Your task to perform on an android device: turn on notifications settings in the gmail app Image 0: 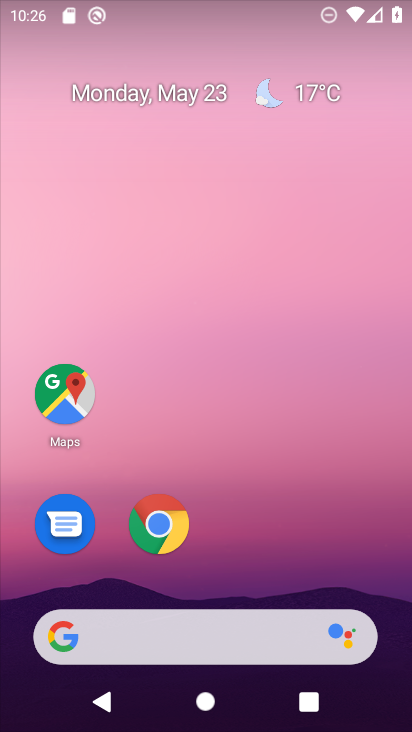
Step 0: drag from (202, 575) to (216, 215)
Your task to perform on an android device: turn on notifications settings in the gmail app Image 1: 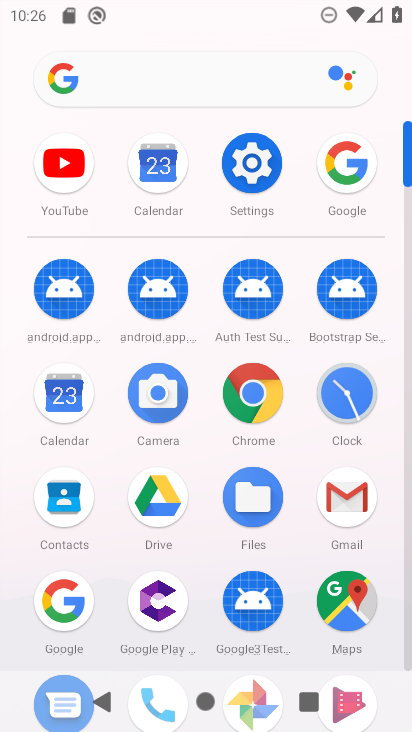
Step 1: click (341, 495)
Your task to perform on an android device: turn on notifications settings in the gmail app Image 2: 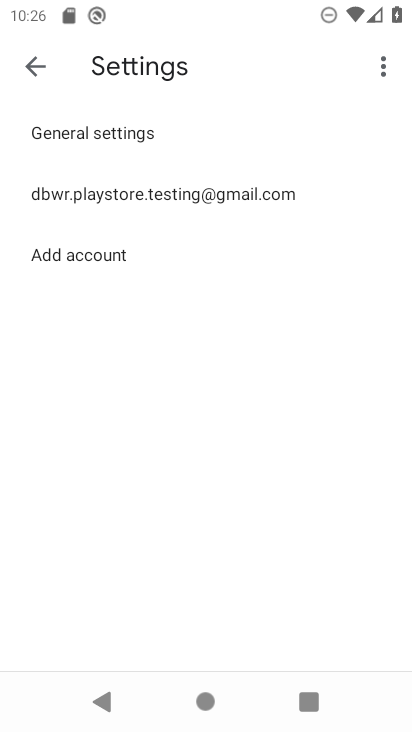
Step 2: click (141, 196)
Your task to perform on an android device: turn on notifications settings in the gmail app Image 3: 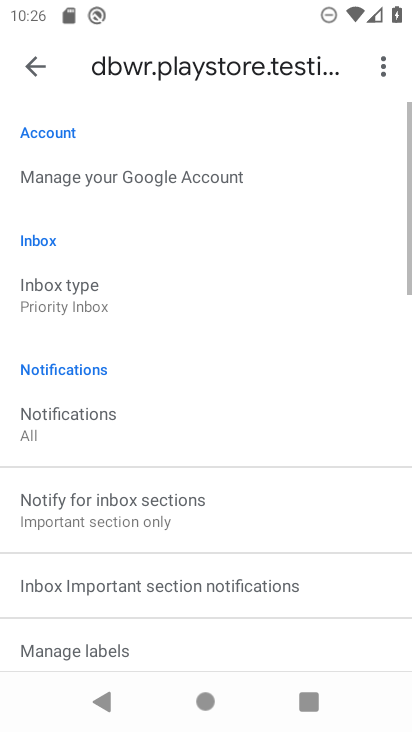
Step 3: drag from (196, 612) to (232, 438)
Your task to perform on an android device: turn on notifications settings in the gmail app Image 4: 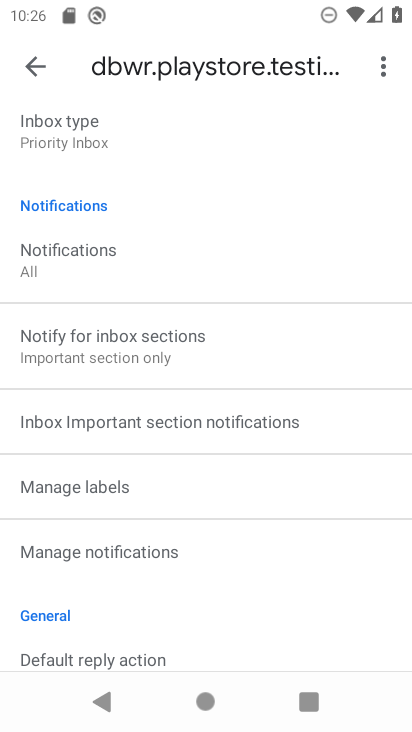
Step 4: click (251, 552)
Your task to perform on an android device: turn on notifications settings in the gmail app Image 5: 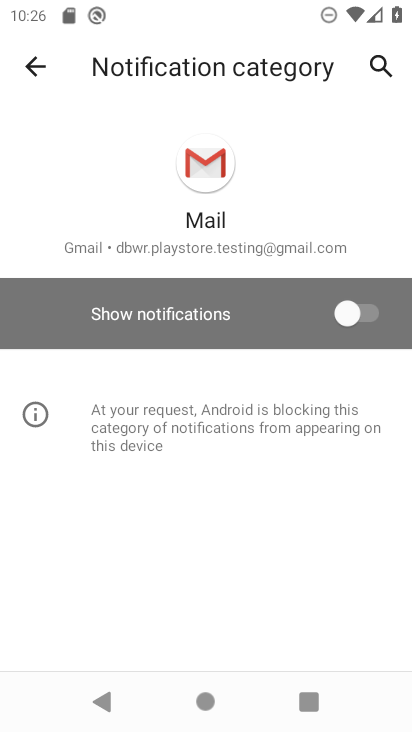
Step 5: click (353, 309)
Your task to perform on an android device: turn on notifications settings in the gmail app Image 6: 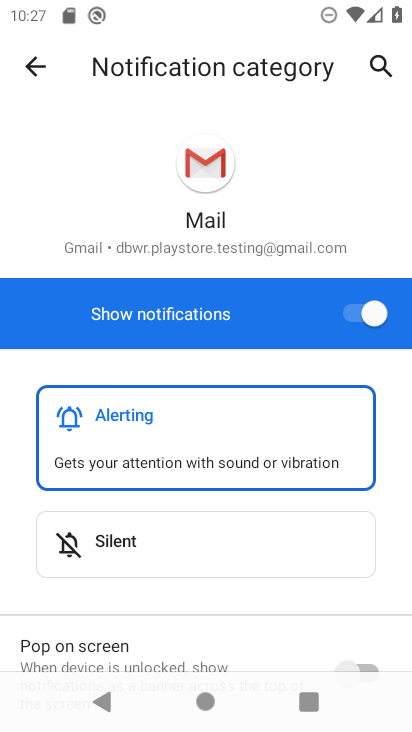
Step 6: task complete